Your task to perform on an android device: Play the last video I watched on Youtube Image 0: 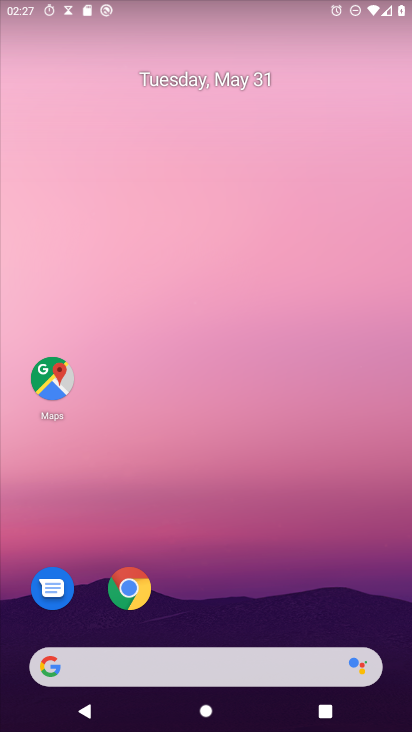
Step 0: drag from (279, 645) to (221, 28)
Your task to perform on an android device: Play the last video I watched on Youtube Image 1: 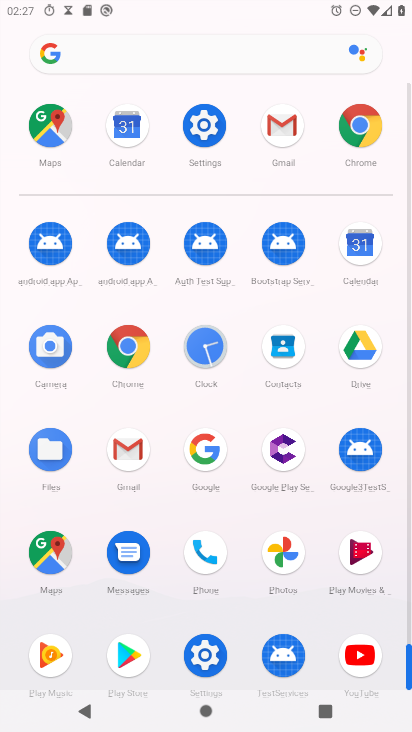
Step 1: click (361, 676)
Your task to perform on an android device: Play the last video I watched on Youtube Image 2: 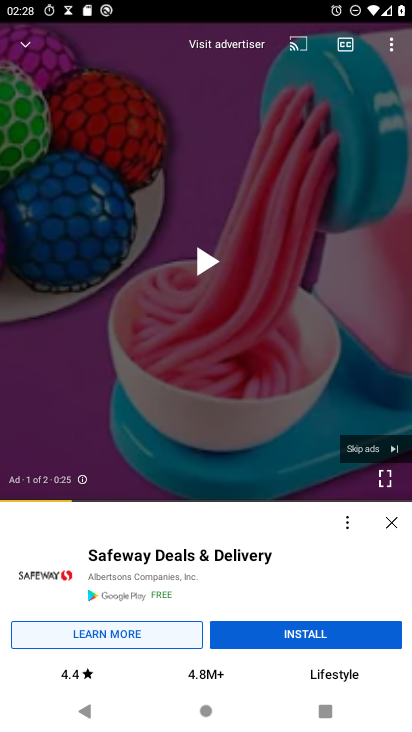
Step 2: press home button
Your task to perform on an android device: Play the last video I watched on Youtube Image 3: 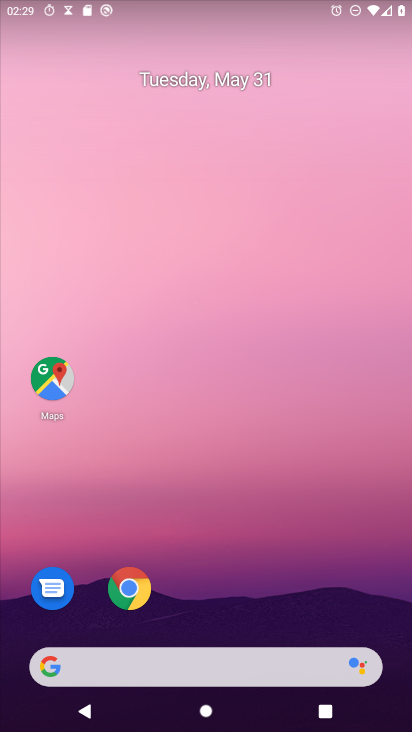
Step 3: drag from (267, 662) to (207, 105)
Your task to perform on an android device: Play the last video I watched on Youtube Image 4: 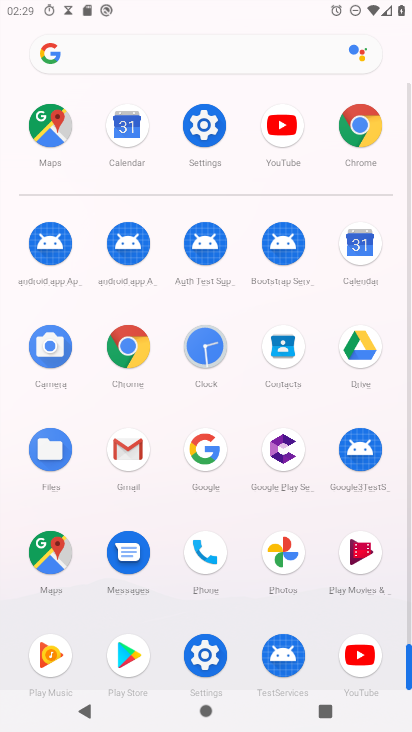
Step 4: drag from (308, 618) to (315, 312)
Your task to perform on an android device: Play the last video I watched on Youtube Image 5: 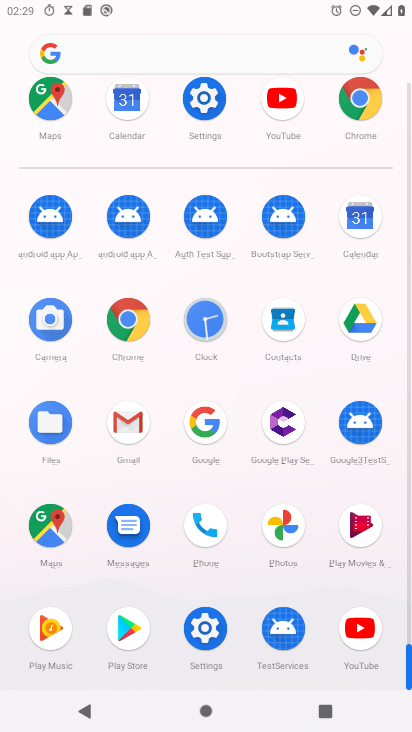
Step 5: click (353, 627)
Your task to perform on an android device: Play the last video I watched on Youtube Image 6: 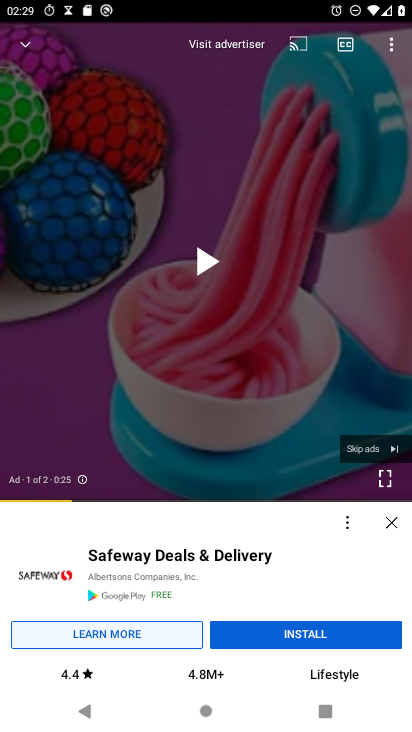
Step 6: task complete